Your task to perform on an android device: Search for "logitech g pro" on newegg.com, select the first entry, and add it to the cart. Image 0: 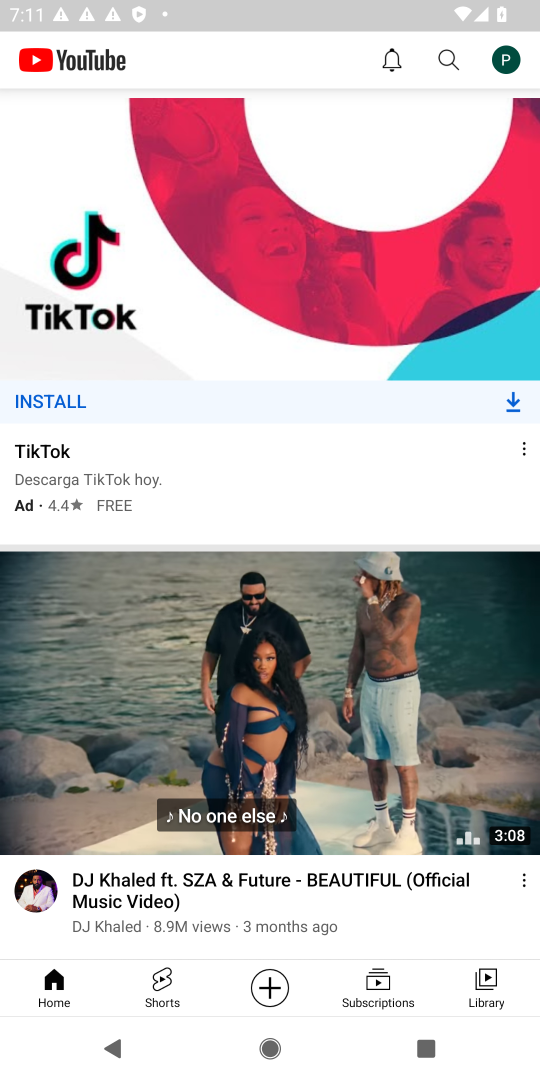
Step 0: press home button
Your task to perform on an android device: Search for "logitech g pro" on newegg.com, select the first entry, and add it to the cart. Image 1: 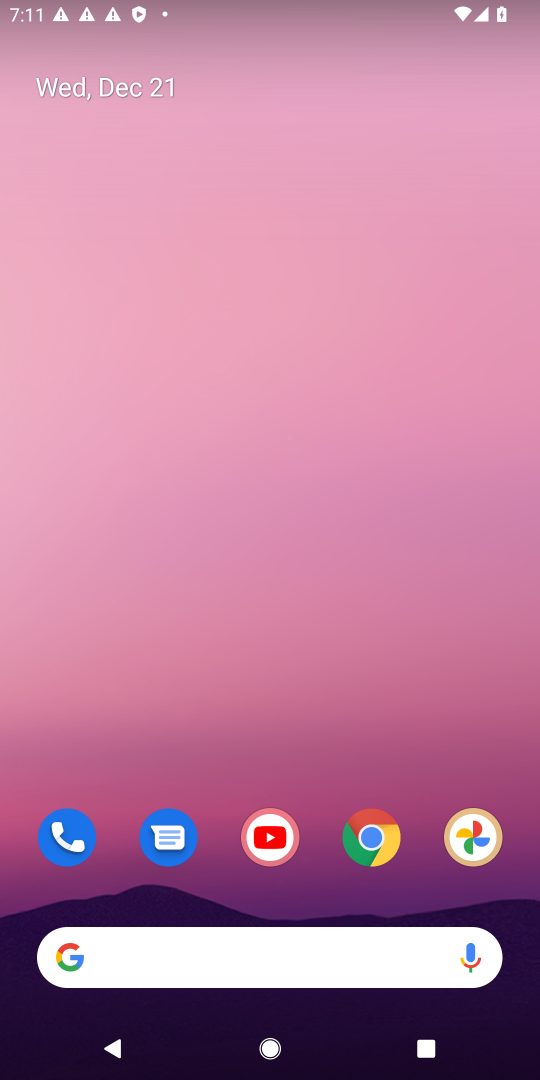
Step 1: drag from (226, 939) to (185, 255)
Your task to perform on an android device: Search for "logitech g pro" on newegg.com, select the first entry, and add it to the cart. Image 2: 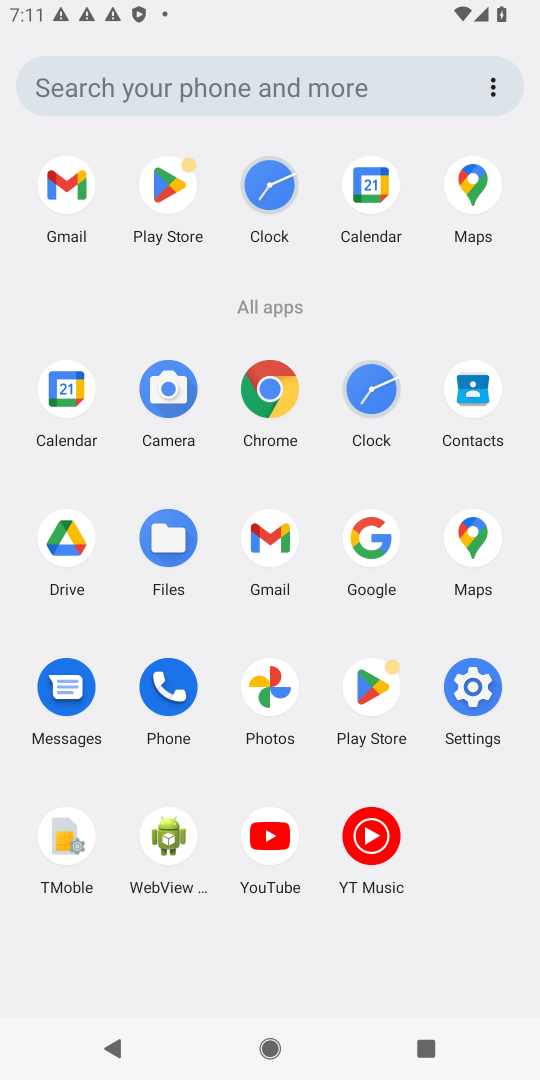
Step 2: click (374, 529)
Your task to perform on an android device: Search for "logitech g pro" on newegg.com, select the first entry, and add it to the cart. Image 3: 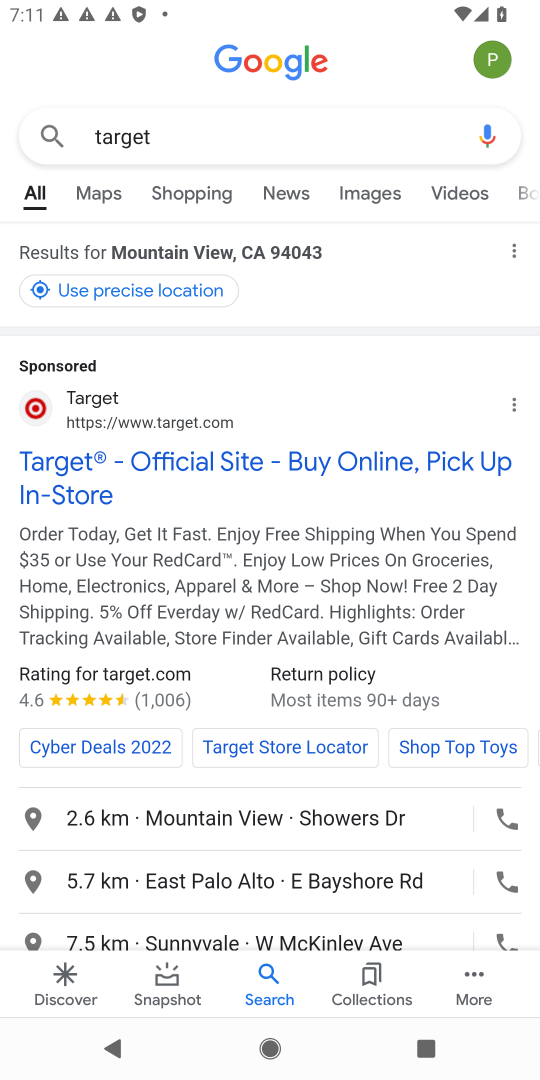
Step 3: click (121, 139)
Your task to perform on an android device: Search for "logitech g pro" on newegg.com, select the first entry, and add it to the cart. Image 4: 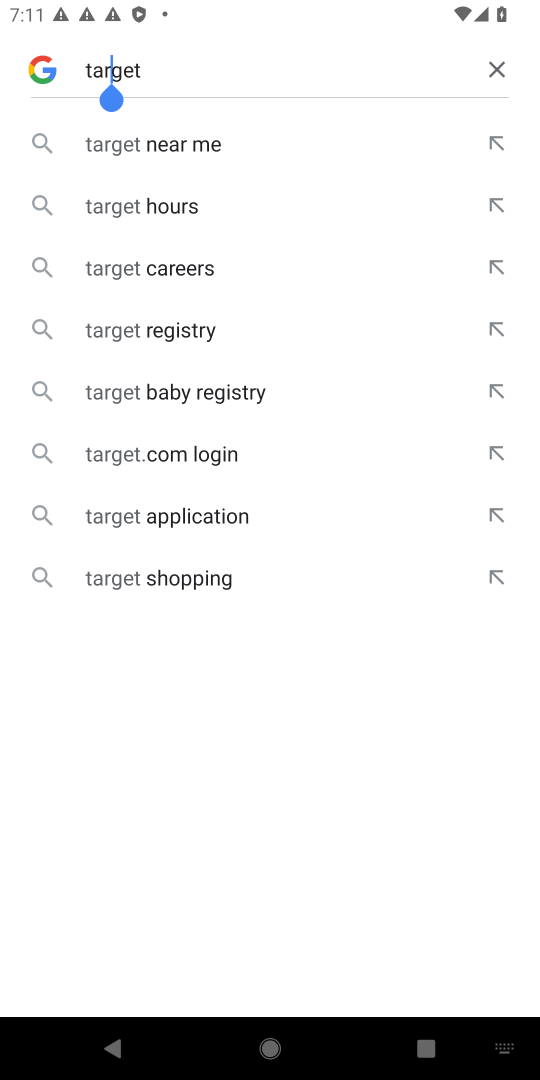
Step 4: click (497, 73)
Your task to perform on an android device: Search for "logitech g pro" on newegg.com, select the first entry, and add it to the cart. Image 5: 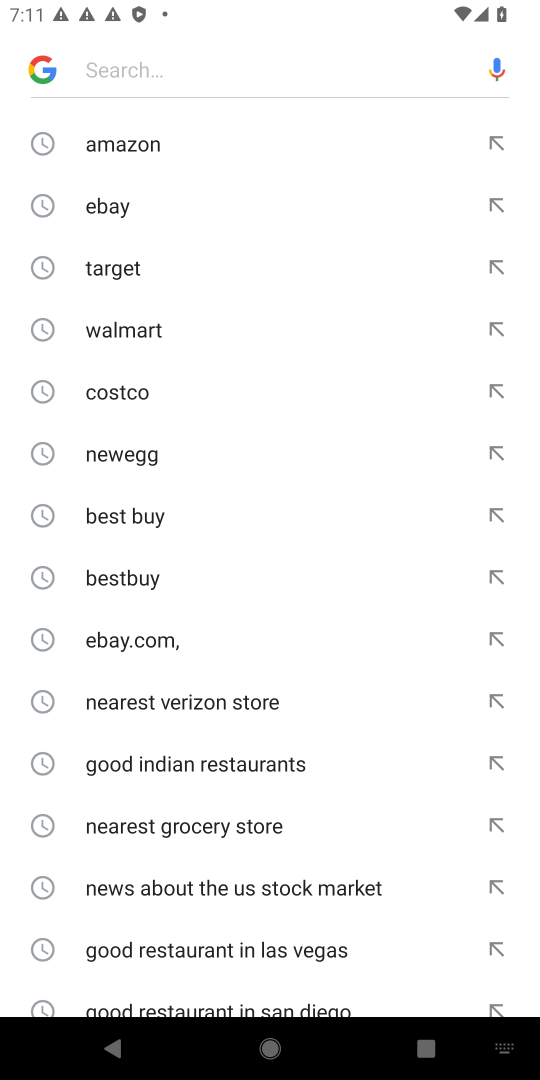
Step 5: click (136, 453)
Your task to perform on an android device: Search for "logitech g pro" on newegg.com, select the first entry, and add it to the cart. Image 6: 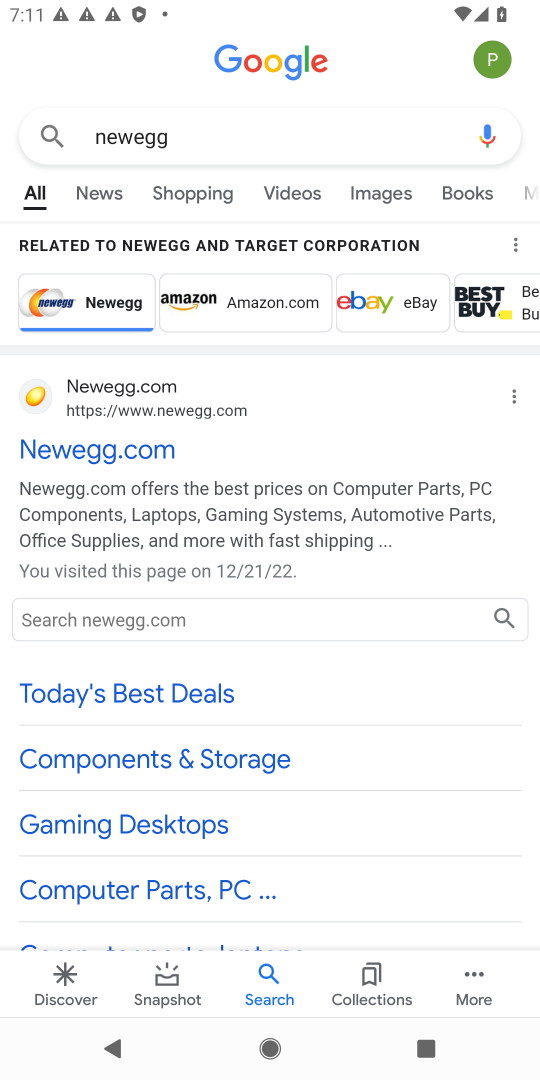
Step 6: click (126, 439)
Your task to perform on an android device: Search for "logitech g pro" on newegg.com, select the first entry, and add it to the cart. Image 7: 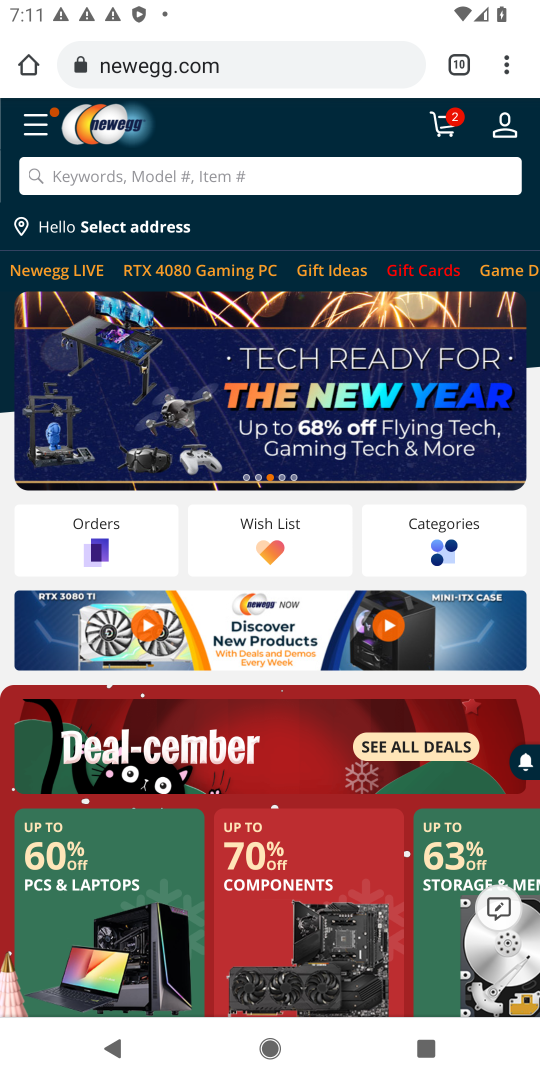
Step 7: click (74, 181)
Your task to perform on an android device: Search for "logitech g pro" on newegg.com, select the first entry, and add it to the cart. Image 8: 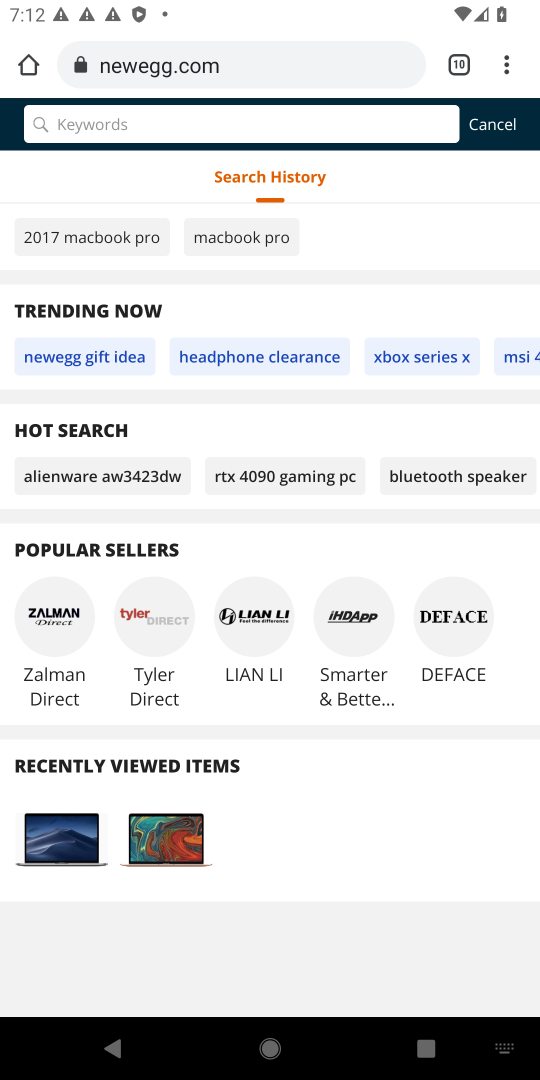
Step 8: type "logitech g pro"
Your task to perform on an android device: Search for "logitech g pro" on newegg.com, select the first entry, and add it to the cart. Image 9: 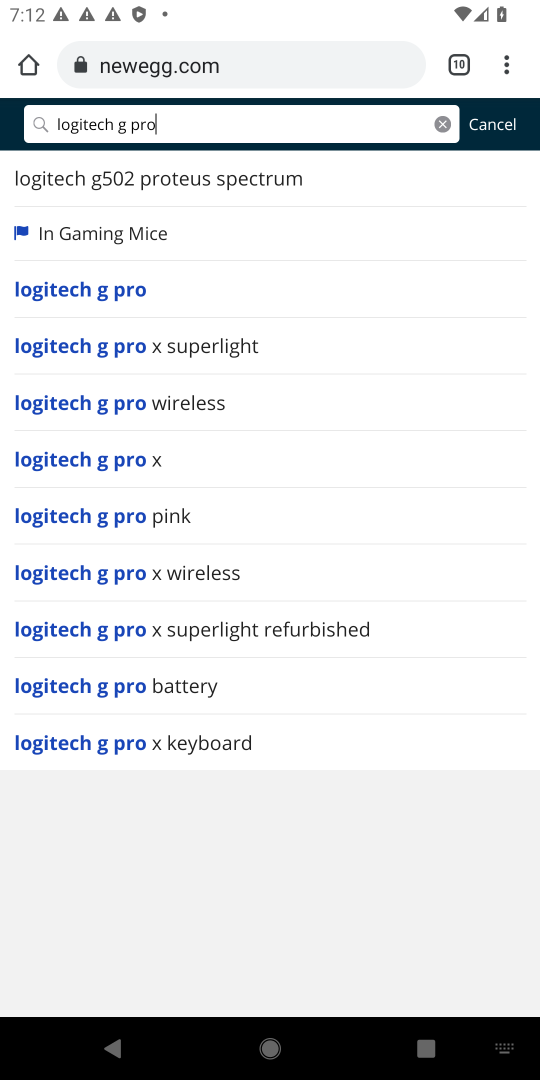
Step 9: click (88, 287)
Your task to perform on an android device: Search for "logitech g pro" on newegg.com, select the first entry, and add it to the cart. Image 10: 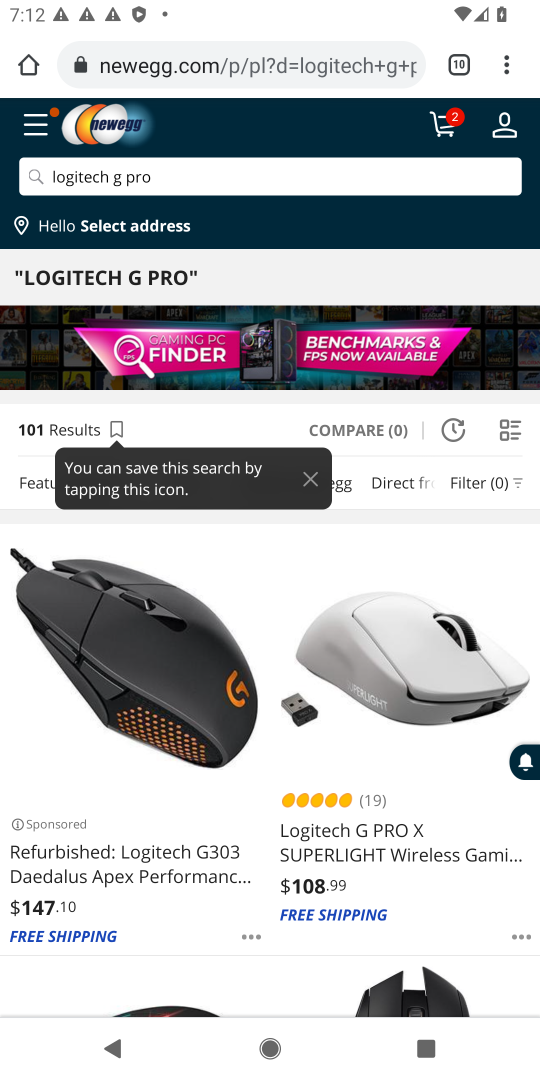
Step 10: click (154, 864)
Your task to perform on an android device: Search for "logitech g pro" on newegg.com, select the first entry, and add it to the cart. Image 11: 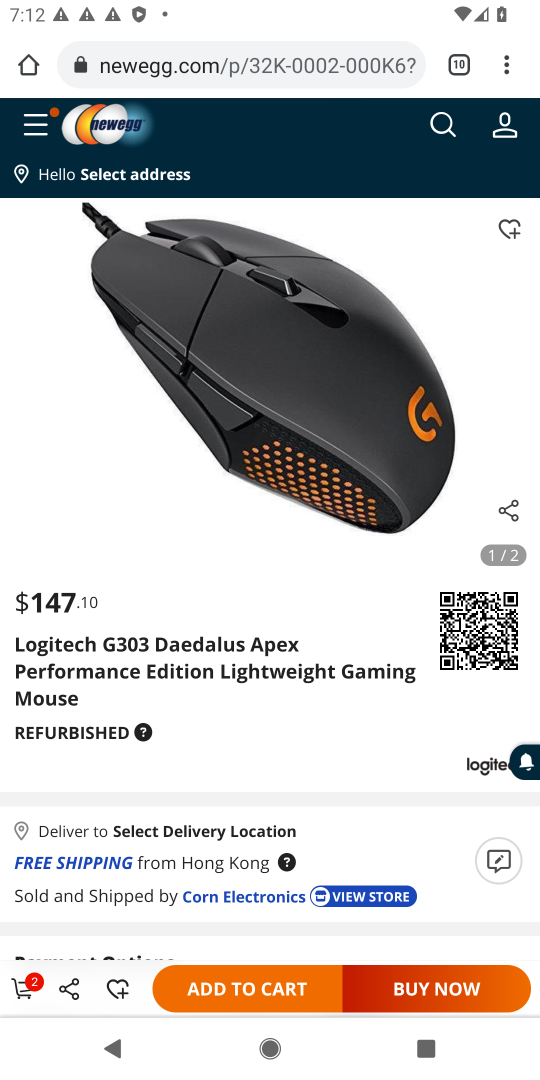
Step 11: click (230, 981)
Your task to perform on an android device: Search for "logitech g pro" on newegg.com, select the first entry, and add it to the cart. Image 12: 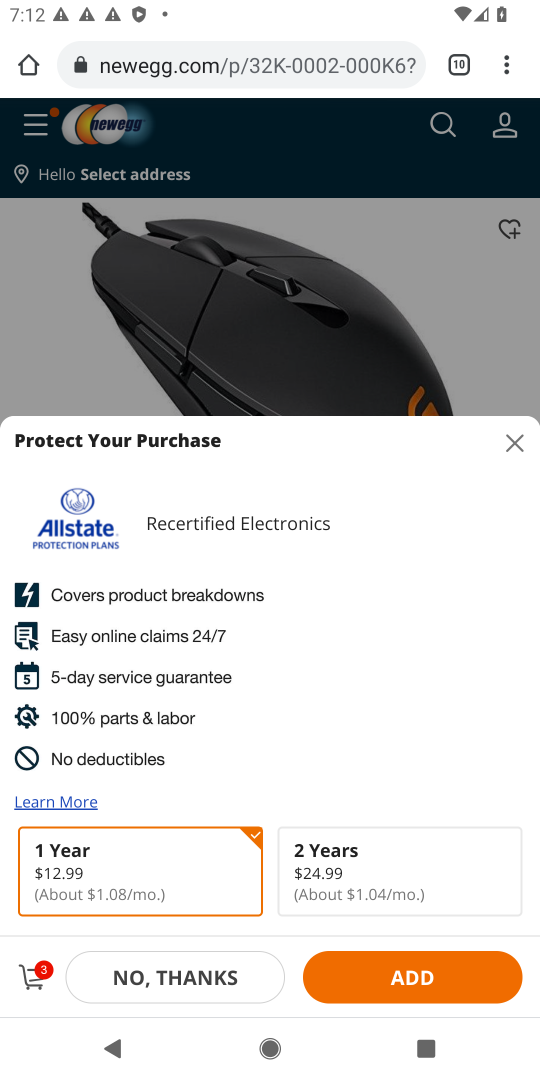
Step 12: task complete